Your task to perform on an android device: set default search engine in the chrome app Image 0: 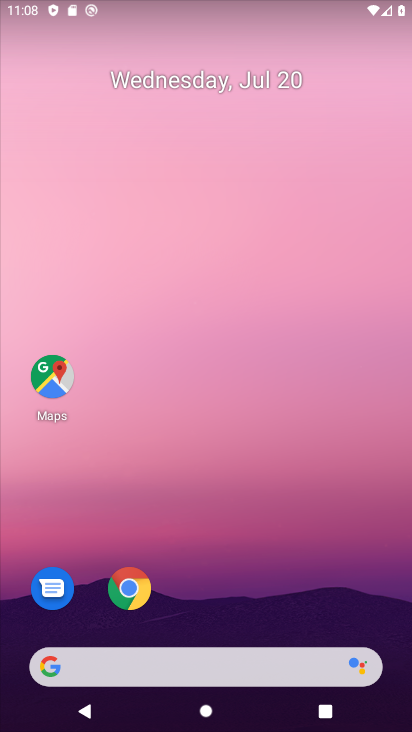
Step 0: press home button
Your task to perform on an android device: set default search engine in the chrome app Image 1: 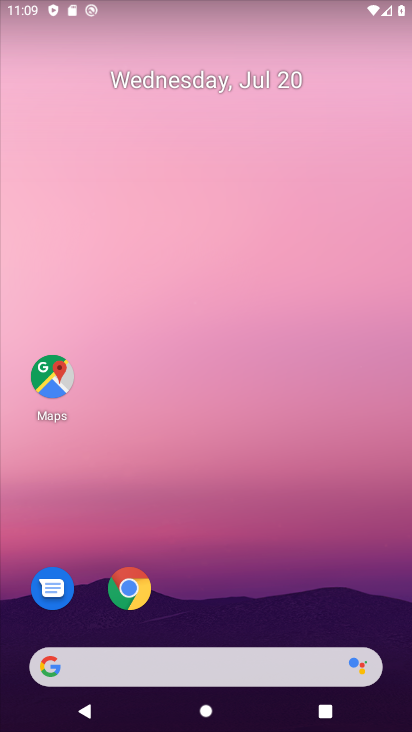
Step 1: click (129, 585)
Your task to perform on an android device: set default search engine in the chrome app Image 2: 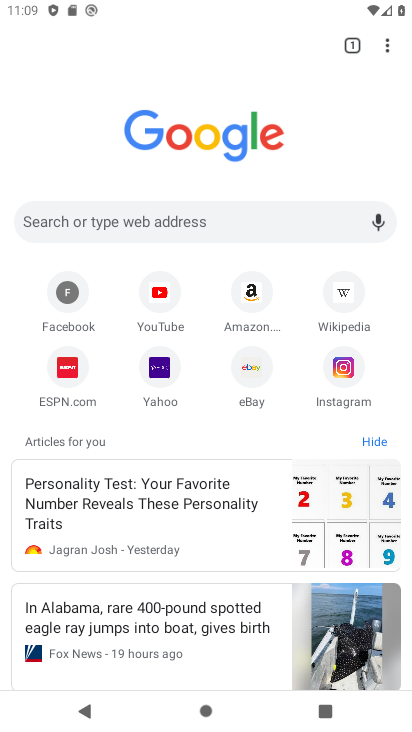
Step 2: drag from (391, 40) to (229, 385)
Your task to perform on an android device: set default search engine in the chrome app Image 3: 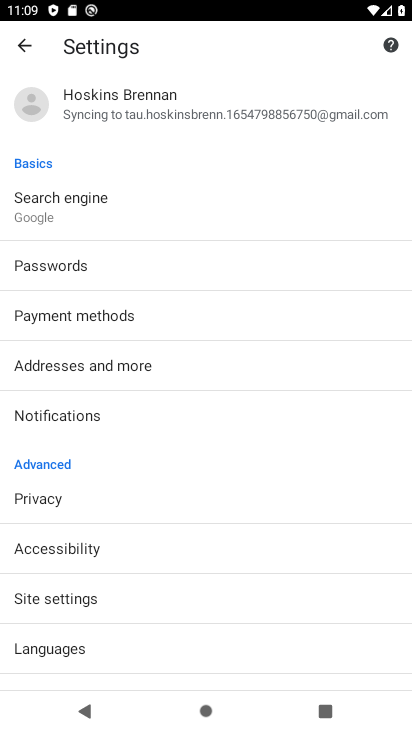
Step 3: click (79, 210)
Your task to perform on an android device: set default search engine in the chrome app Image 4: 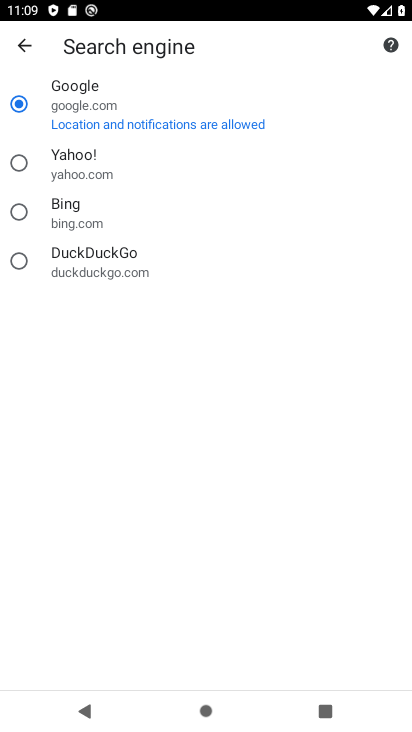
Step 4: task complete